Your task to perform on an android device: Open Youtube and go to "Your channel" Image 0: 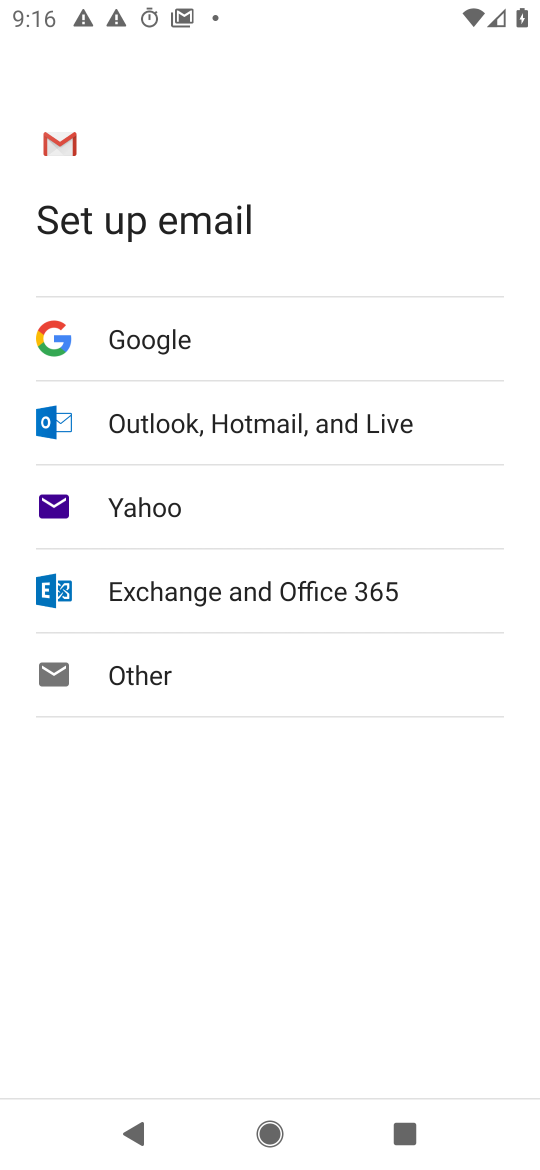
Step 0: press back button
Your task to perform on an android device: Open Youtube and go to "Your channel" Image 1: 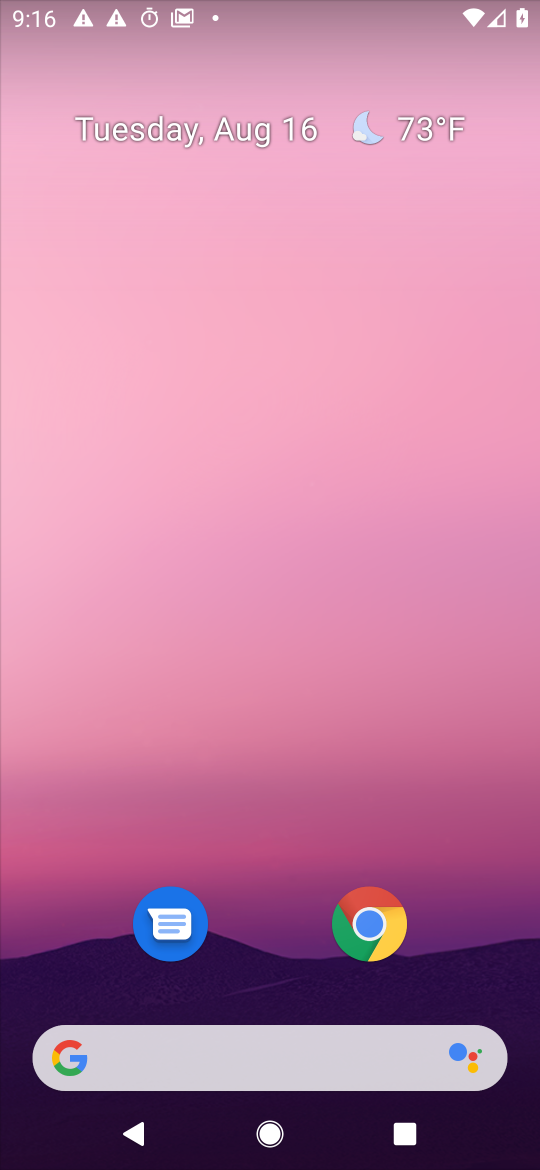
Step 1: drag from (274, 1001) to (327, 17)
Your task to perform on an android device: Open Youtube and go to "Your channel" Image 2: 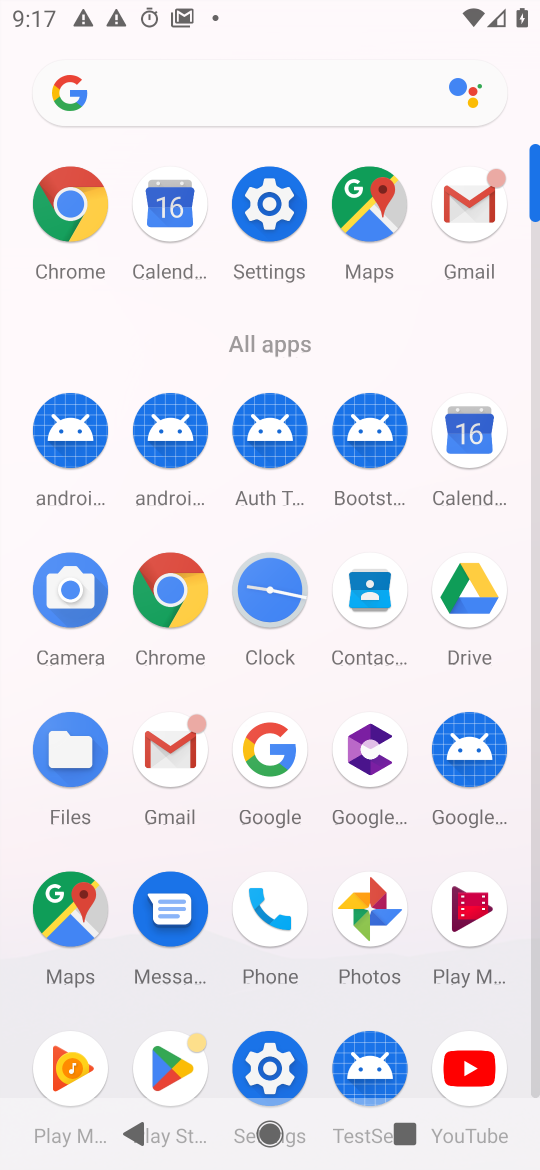
Step 2: click (479, 1058)
Your task to perform on an android device: Open Youtube and go to "Your channel" Image 3: 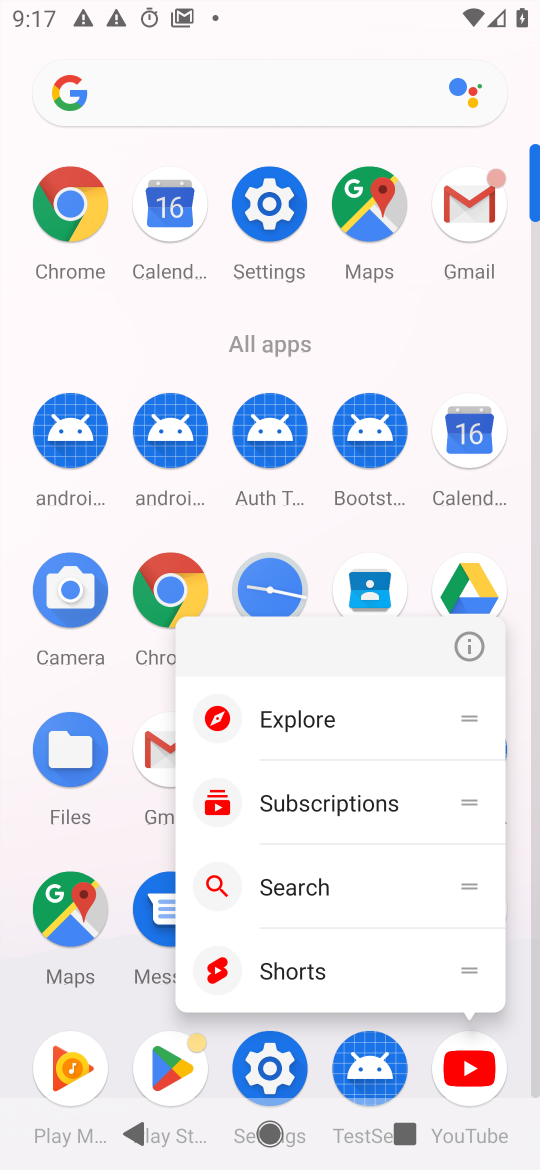
Step 3: click (469, 1080)
Your task to perform on an android device: Open Youtube and go to "Your channel" Image 4: 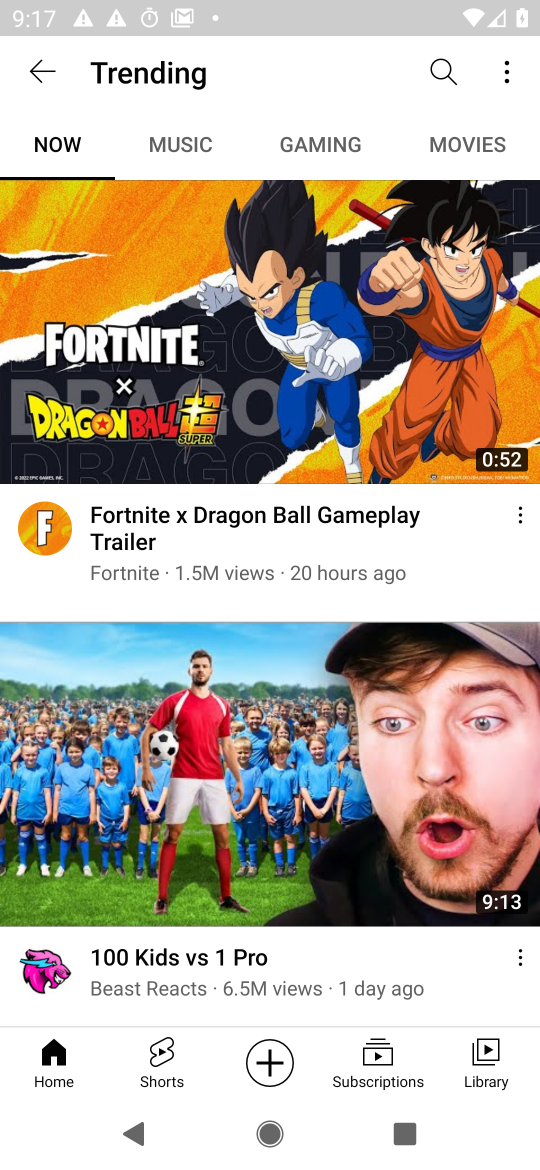
Step 4: click (496, 1063)
Your task to perform on an android device: Open Youtube and go to "Your channel" Image 5: 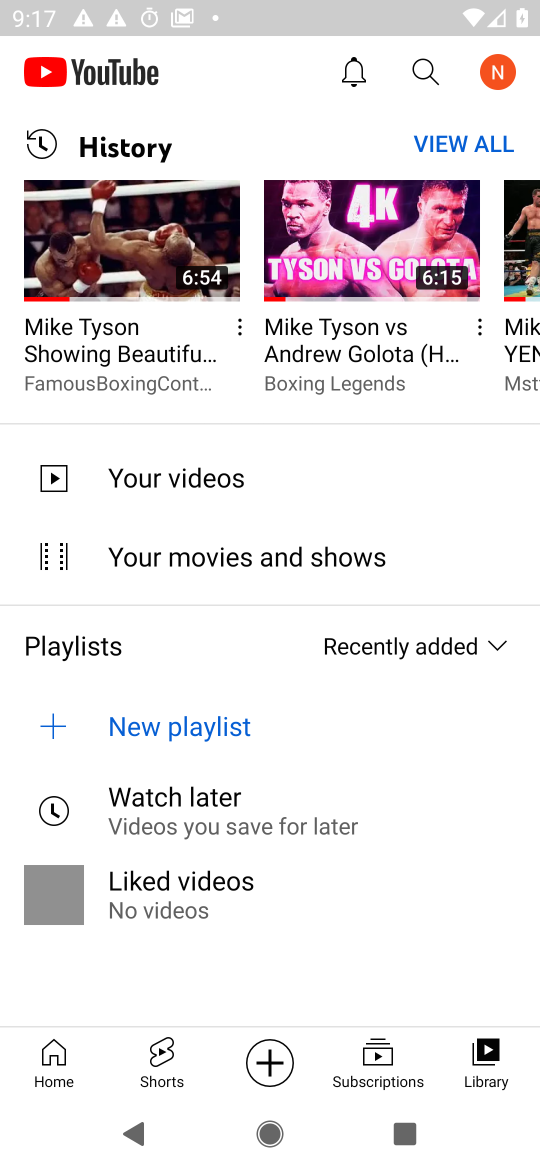
Step 5: click (492, 82)
Your task to perform on an android device: Open Youtube and go to "Your channel" Image 6: 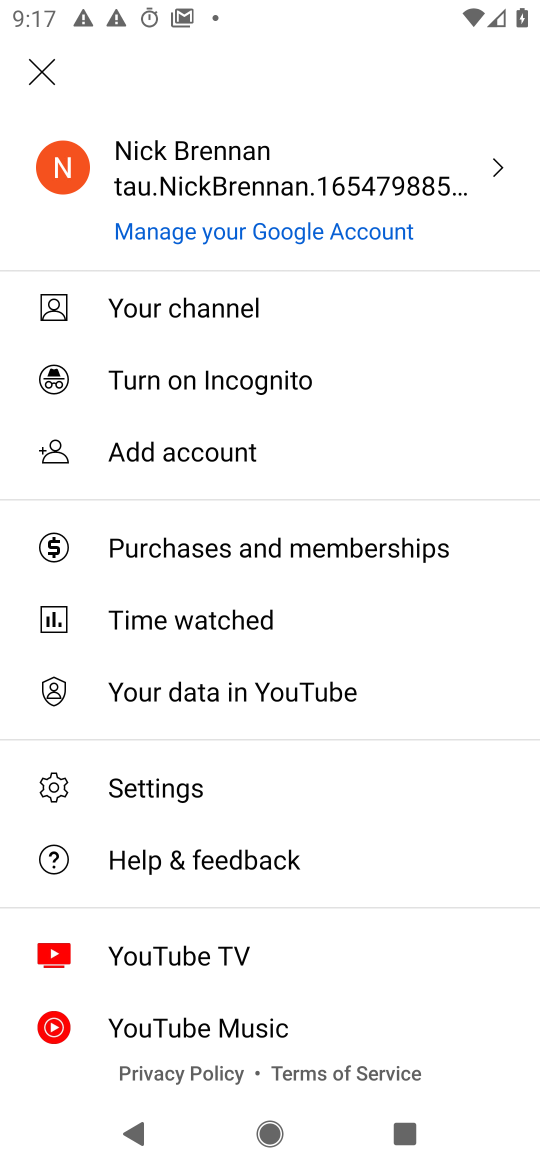
Step 6: click (173, 310)
Your task to perform on an android device: Open Youtube and go to "Your channel" Image 7: 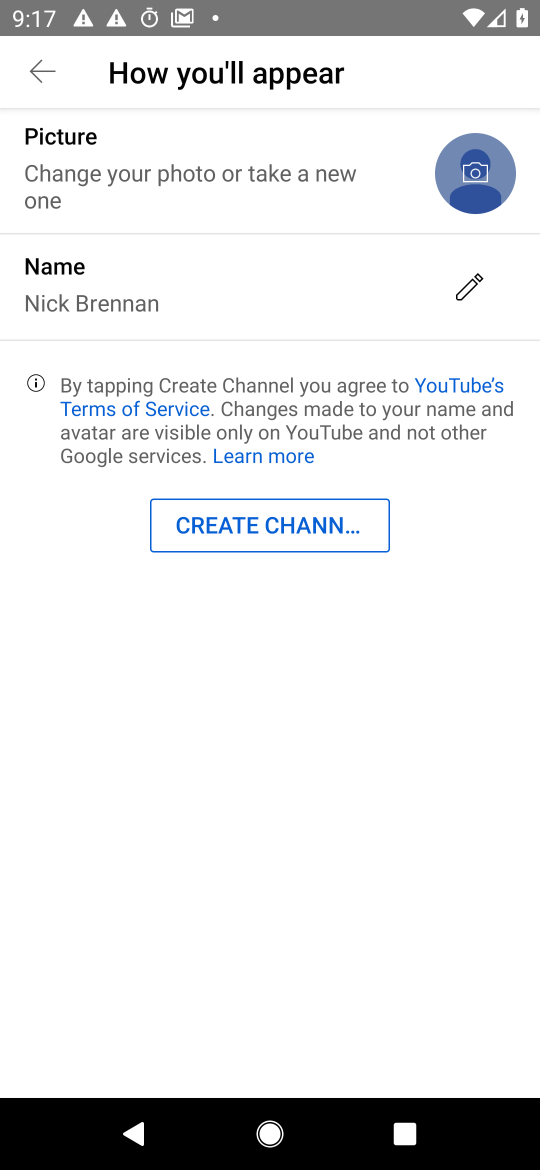
Step 7: task complete